Your task to perform on an android device: Open settings Image 0: 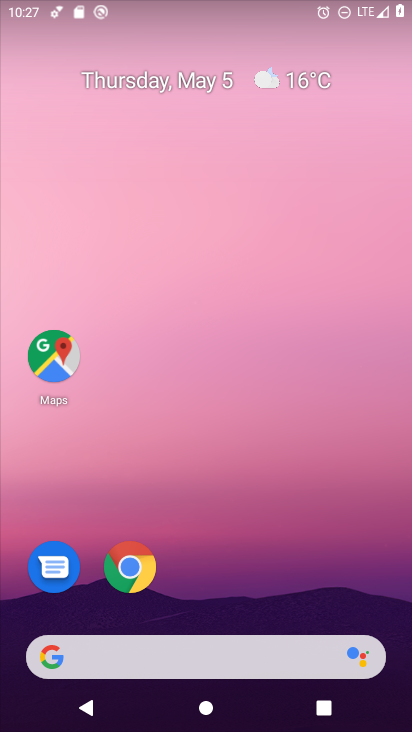
Step 0: drag from (310, 520) to (361, 39)
Your task to perform on an android device: Open settings Image 1: 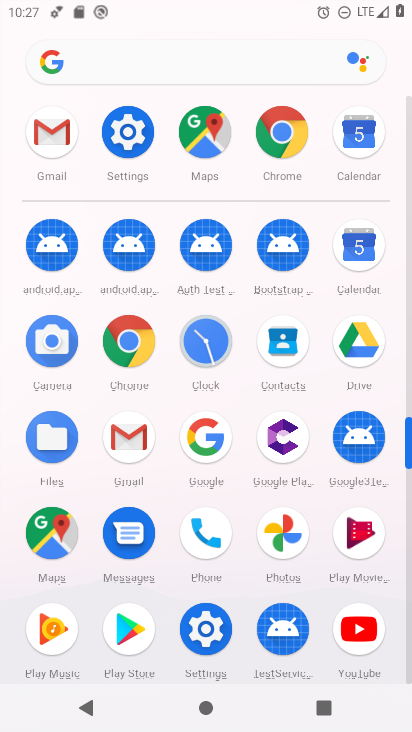
Step 1: click (131, 133)
Your task to perform on an android device: Open settings Image 2: 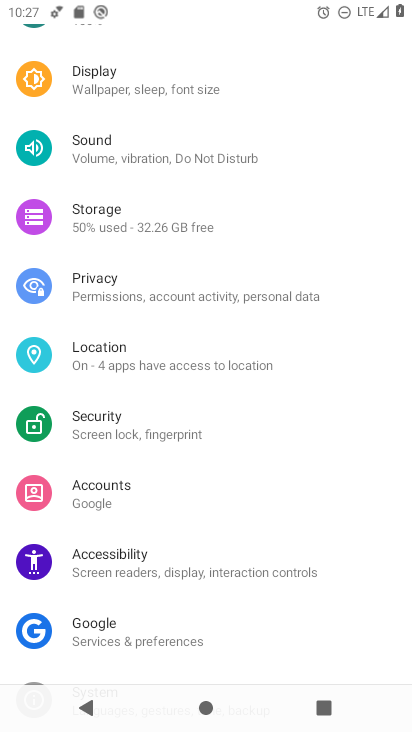
Step 2: task complete